Your task to perform on an android device: Open maps Image 0: 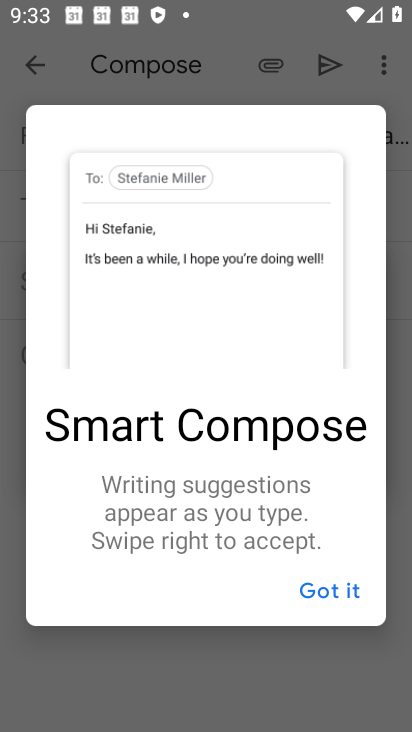
Step 0: press home button
Your task to perform on an android device: Open maps Image 1: 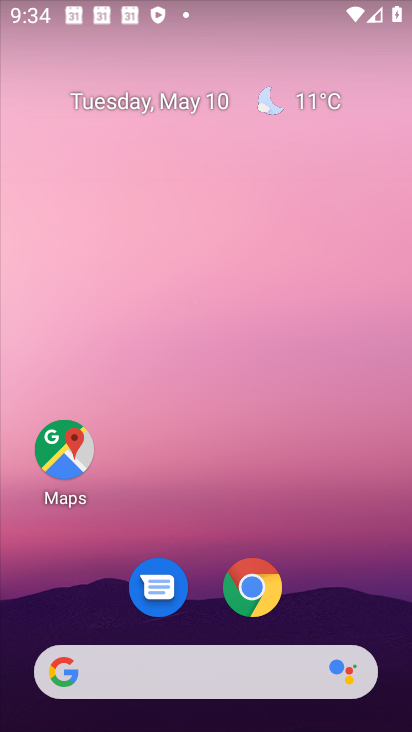
Step 1: drag from (367, 591) to (404, 131)
Your task to perform on an android device: Open maps Image 2: 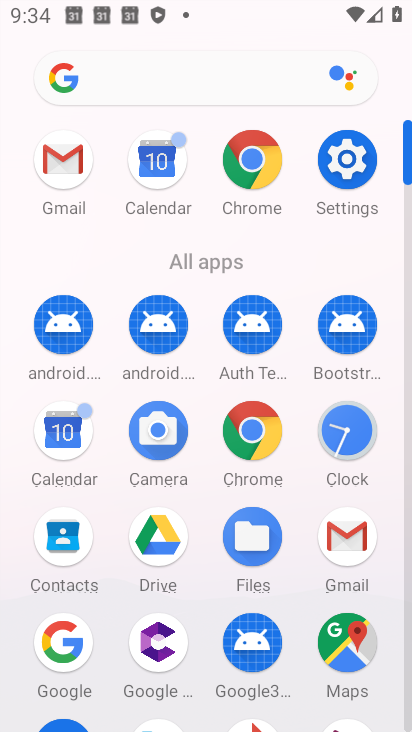
Step 2: click (350, 635)
Your task to perform on an android device: Open maps Image 3: 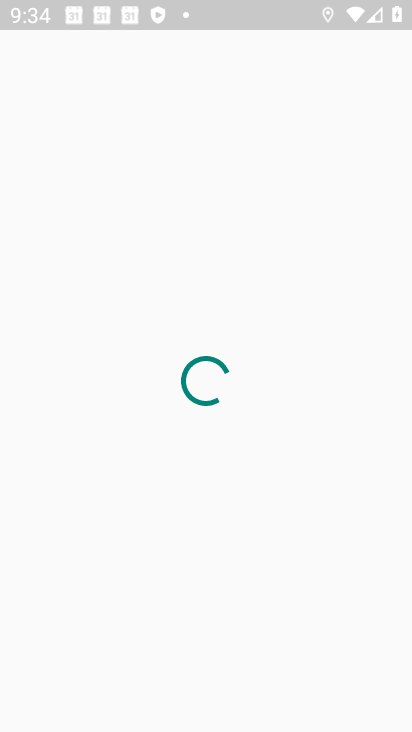
Step 3: click (385, 374)
Your task to perform on an android device: Open maps Image 4: 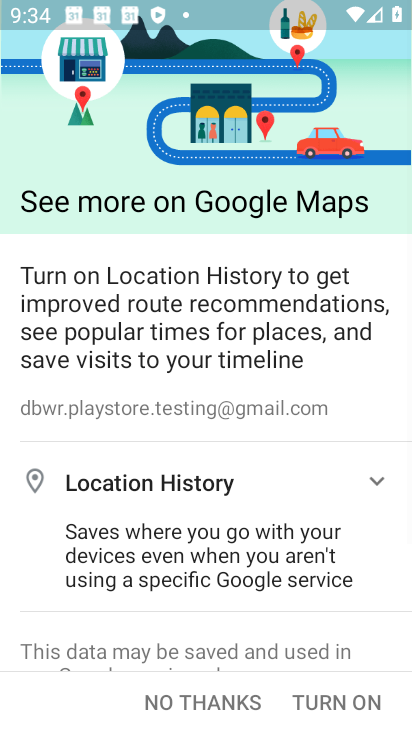
Step 4: click (186, 699)
Your task to perform on an android device: Open maps Image 5: 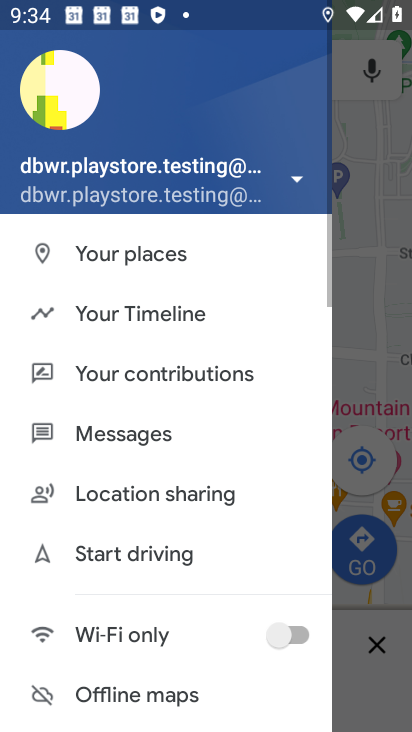
Step 5: click (386, 321)
Your task to perform on an android device: Open maps Image 6: 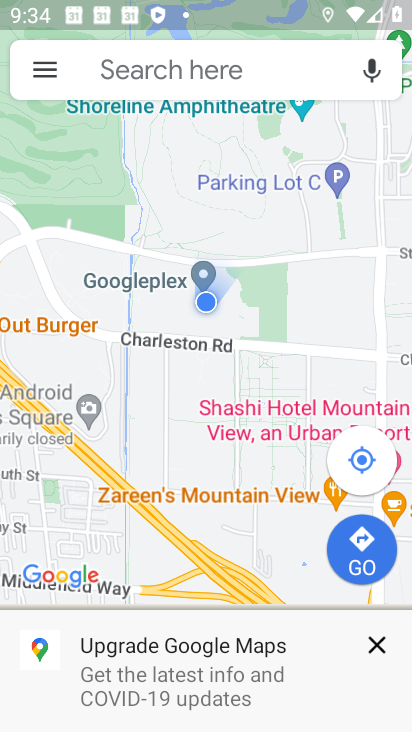
Step 6: task complete